Your task to perform on an android device: Do I have any events today? Image 0: 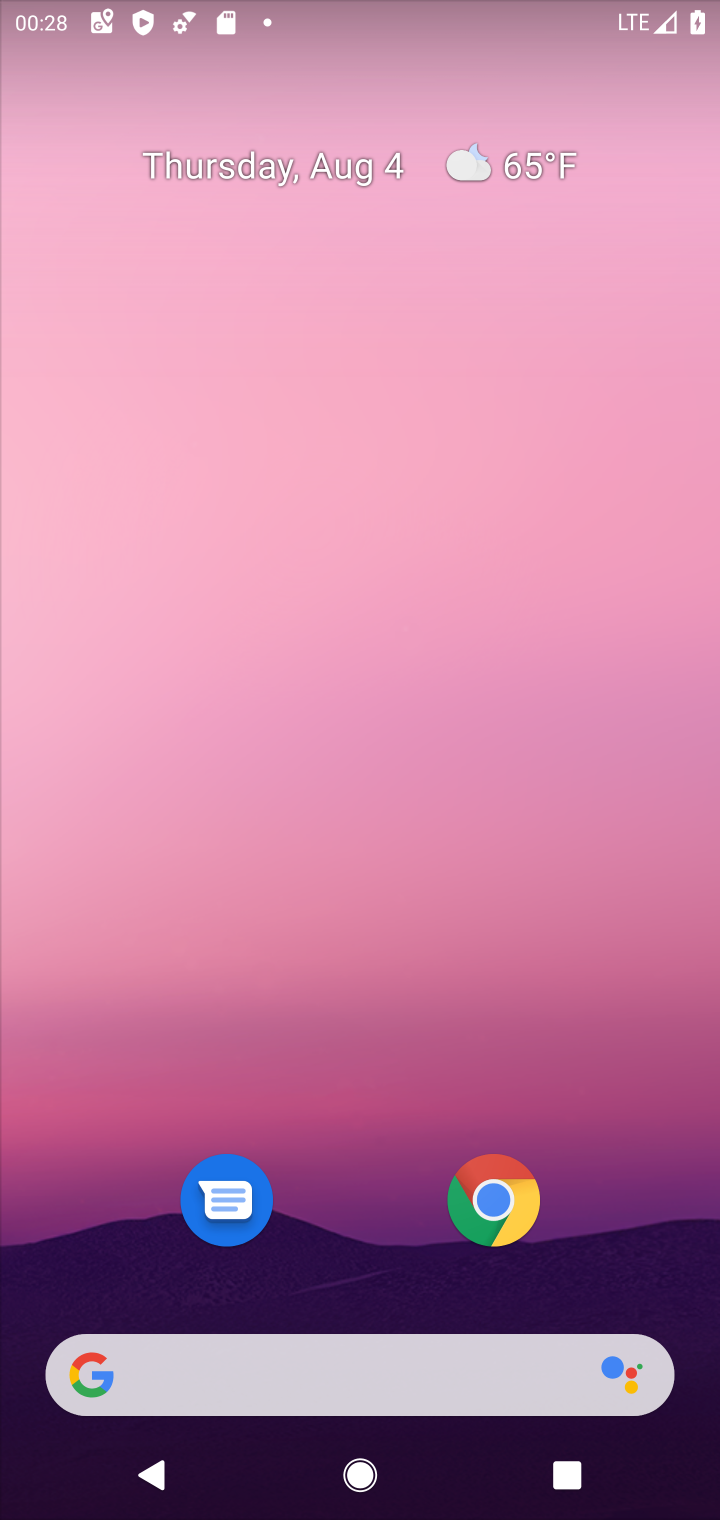
Step 0: press home button
Your task to perform on an android device: Do I have any events today? Image 1: 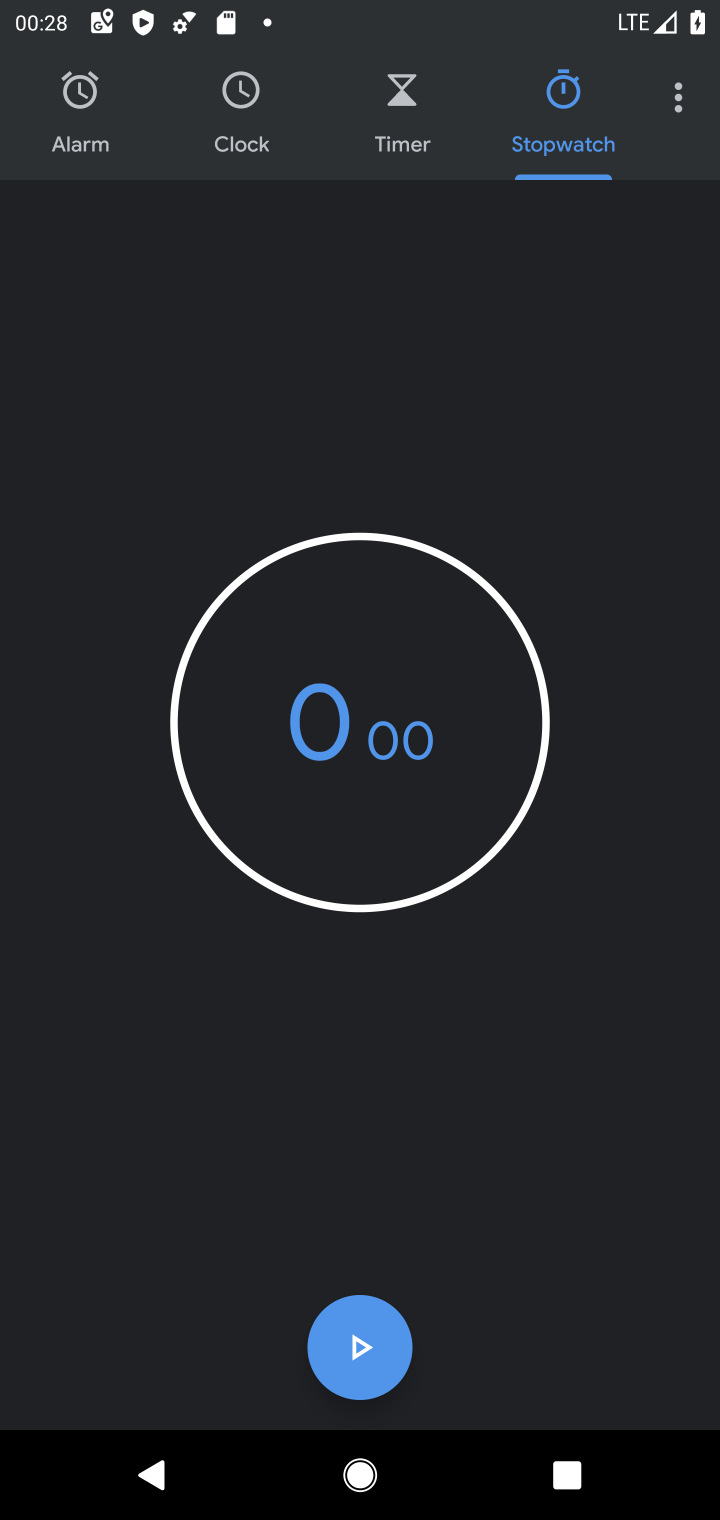
Step 1: drag from (413, 1021) to (468, 0)
Your task to perform on an android device: Do I have any events today? Image 2: 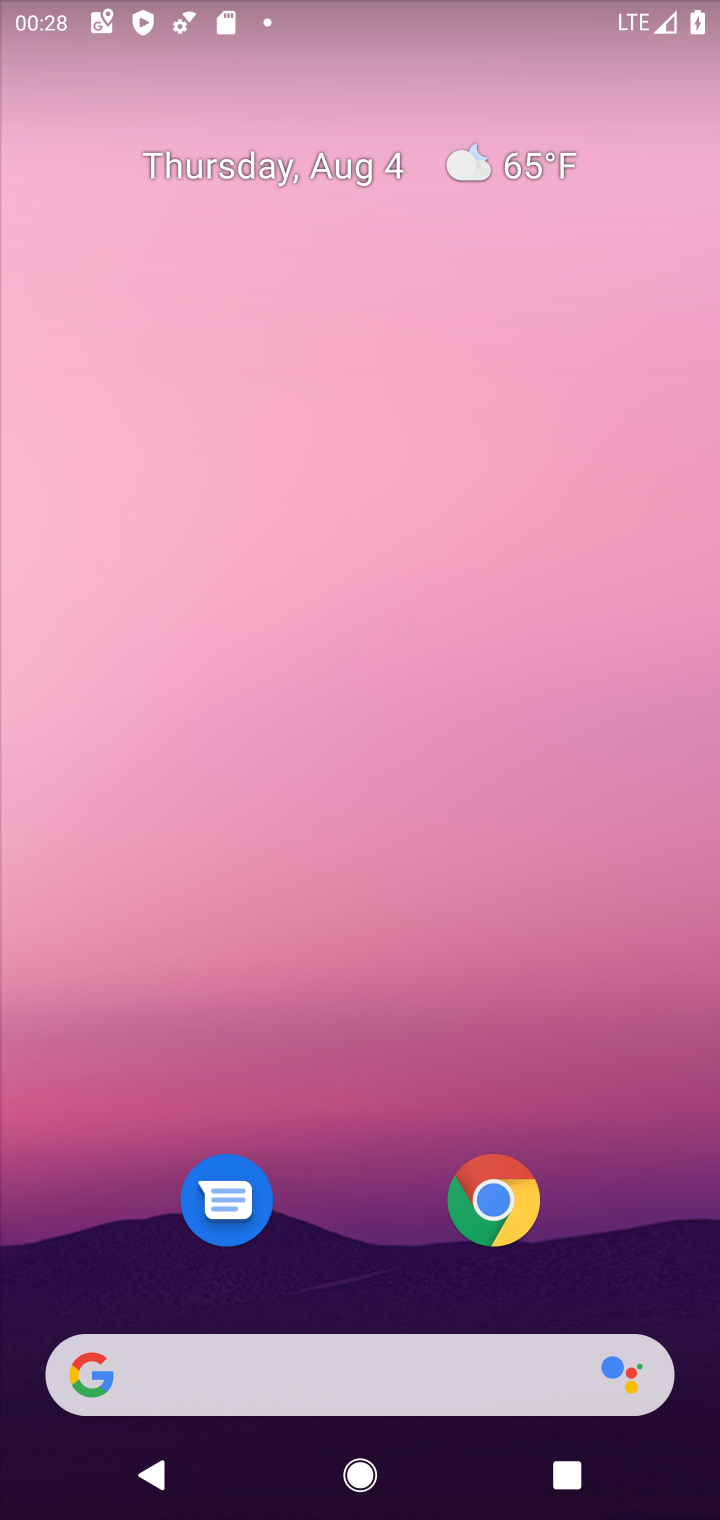
Step 2: drag from (373, 1042) to (383, 185)
Your task to perform on an android device: Do I have any events today? Image 3: 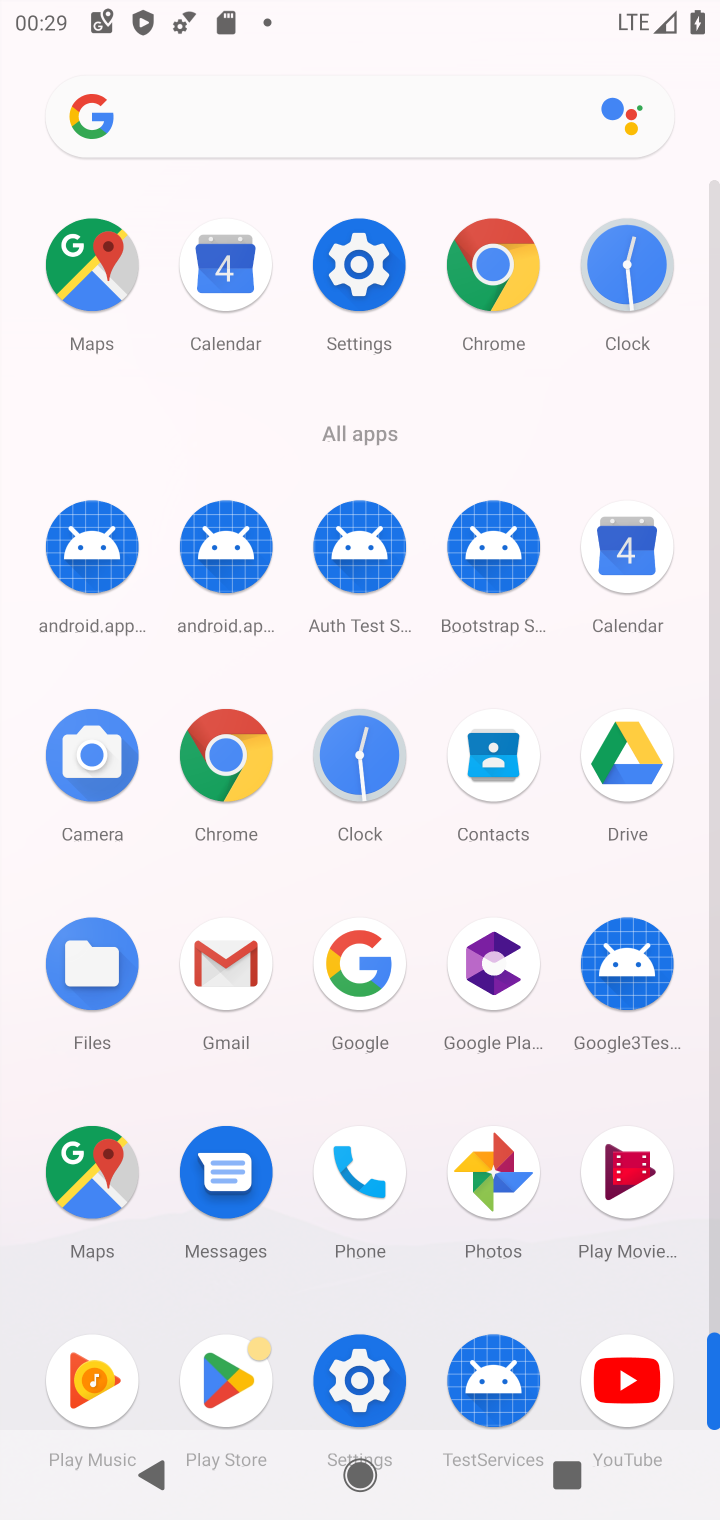
Step 3: click (632, 539)
Your task to perform on an android device: Do I have any events today? Image 4: 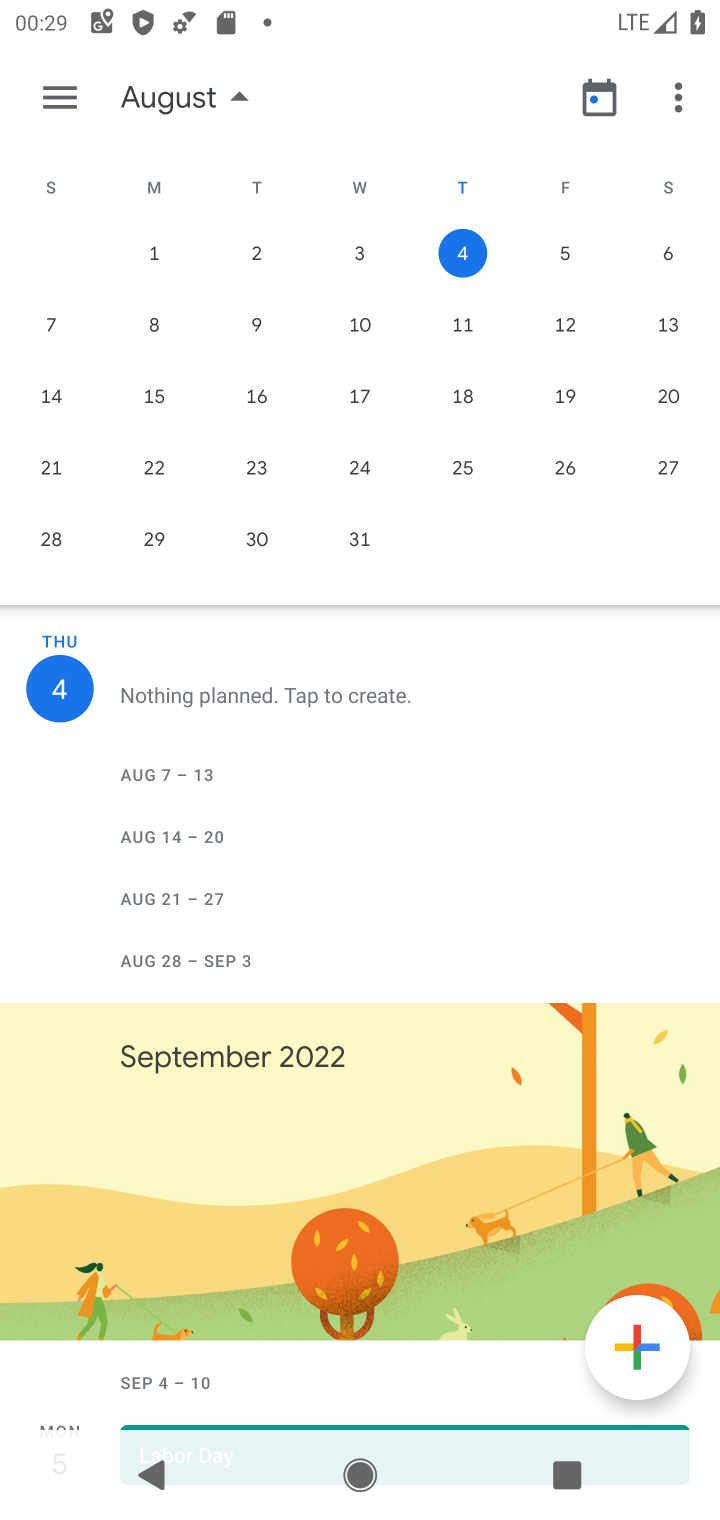
Step 4: click (463, 246)
Your task to perform on an android device: Do I have any events today? Image 5: 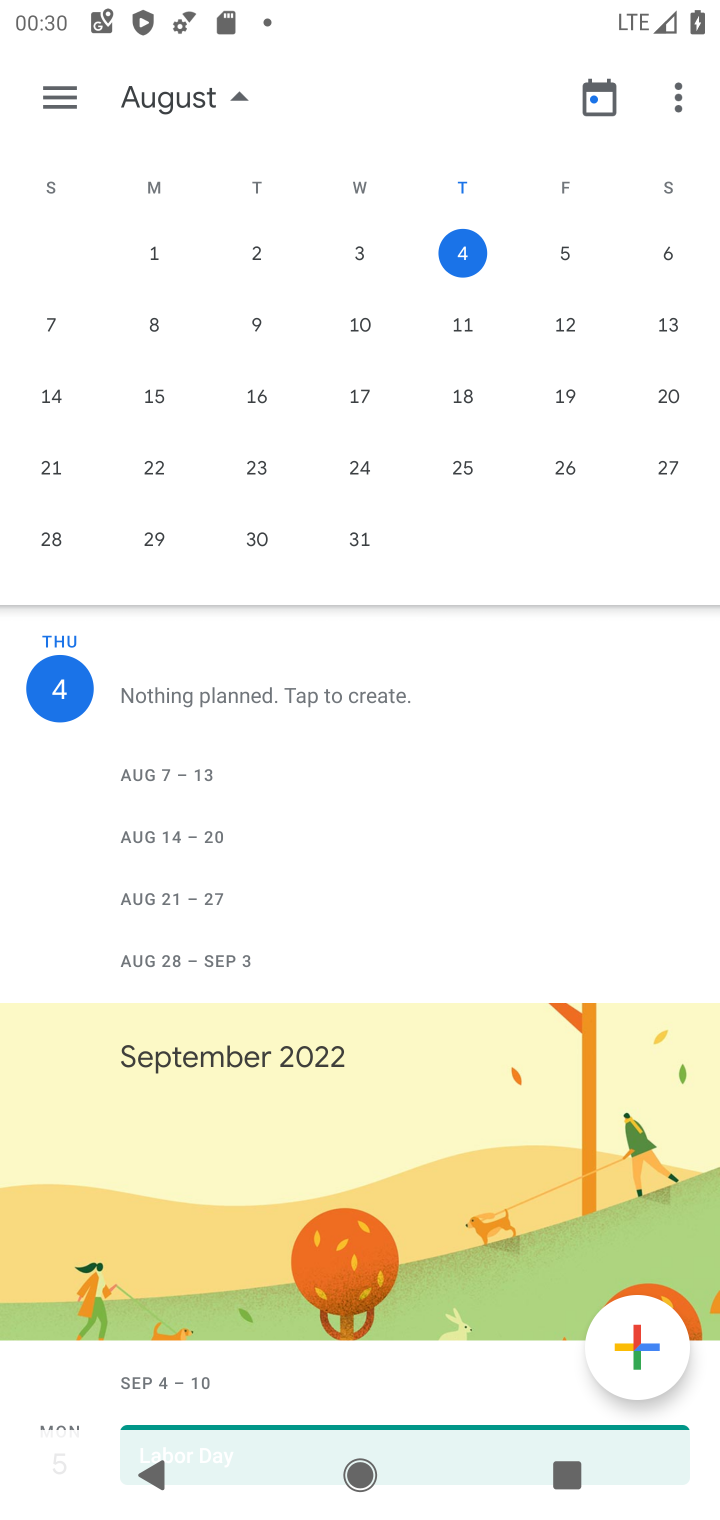
Step 5: task complete